Your task to perform on an android device: turn notification dots on Image 0: 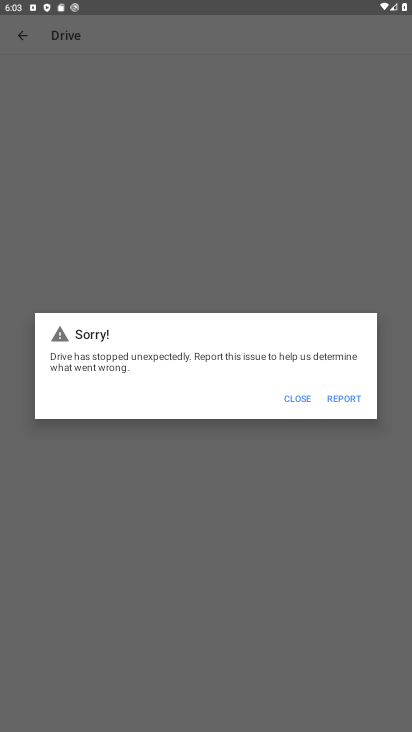
Step 0: task complete